Your task to perform on an android device: delete location history Image 0: 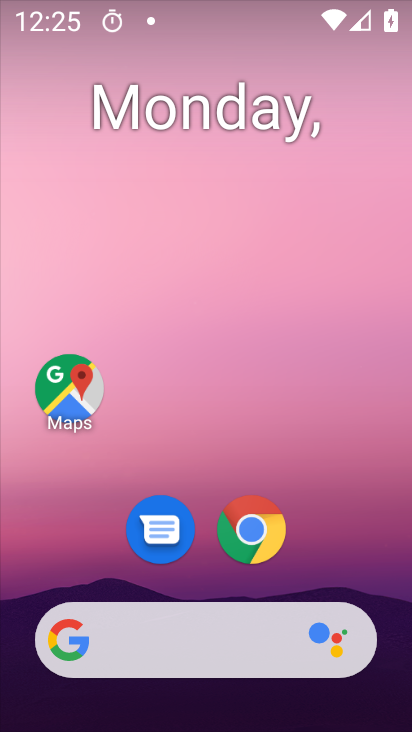
Step 0: drag from (237, 644) to (252, 55)
Your task to perform on an android device: delete location history Image 1: 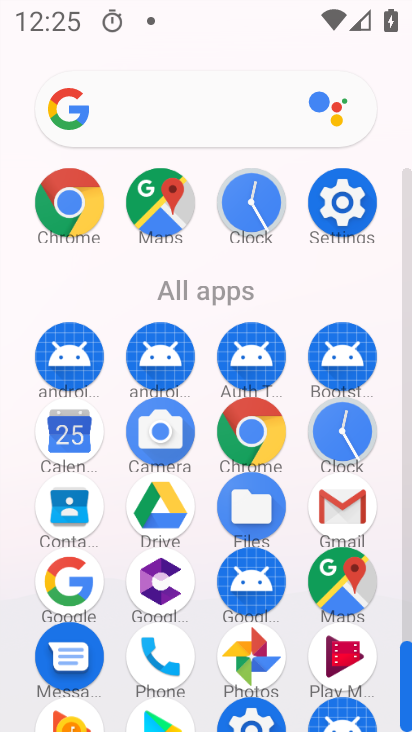
Step 1: click (325, 574)
Your task to perform on an android device: delete location history Image 2: 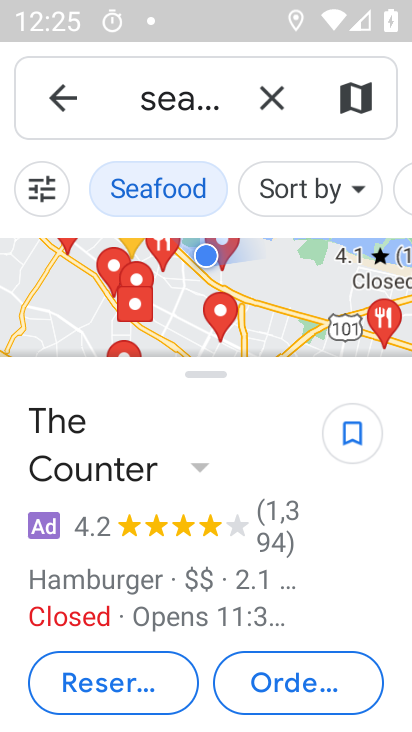
Step 2: click (56, 98)
Your task to perform on an android device: delete location history Image 3: 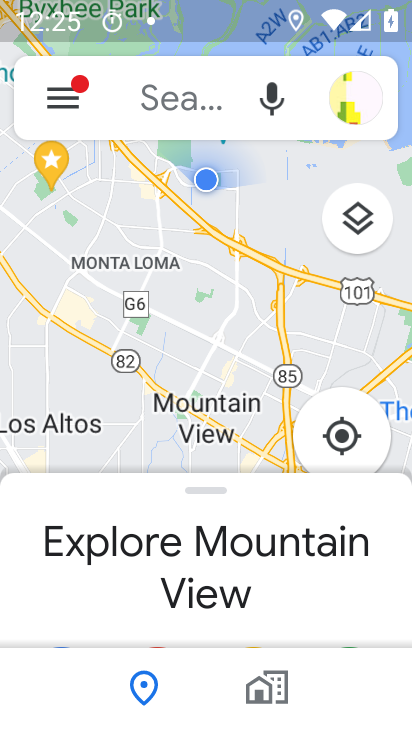
Step 3: click (77, 100)
Your task to perform on an android device: delete location history Image 4: 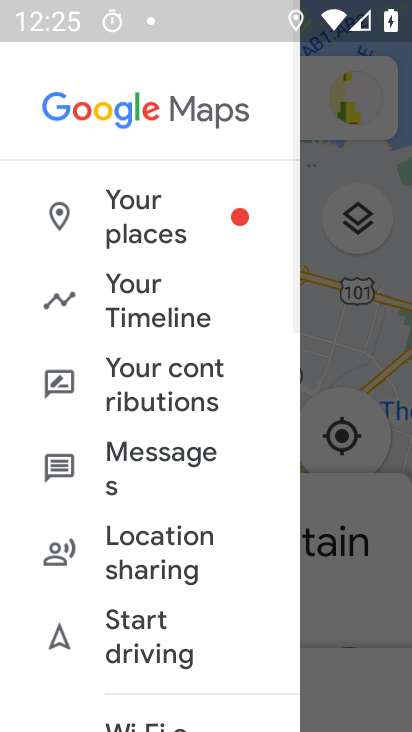
Step 4: drag from (152, 605) to (23, 366)
Your task to perform on an android device: delete location history Image 5: 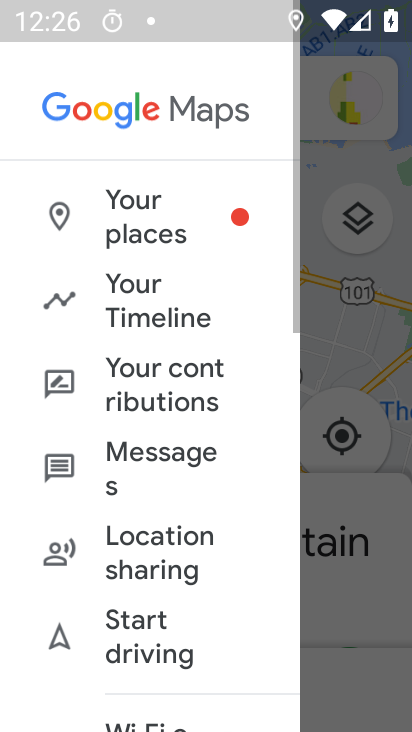
Step 5: drag from (134, 596) to (132, 17)
Your task to perform on an android device: delete location history Image 6: 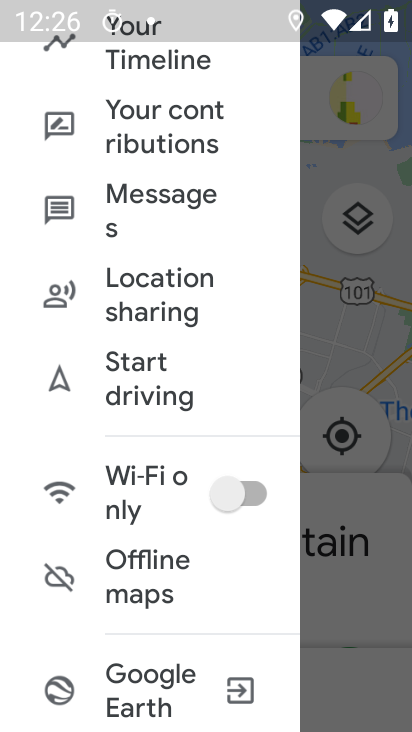
Step 6: click (123, 74)
Your task to perform on an android device: delete location history Image 7: 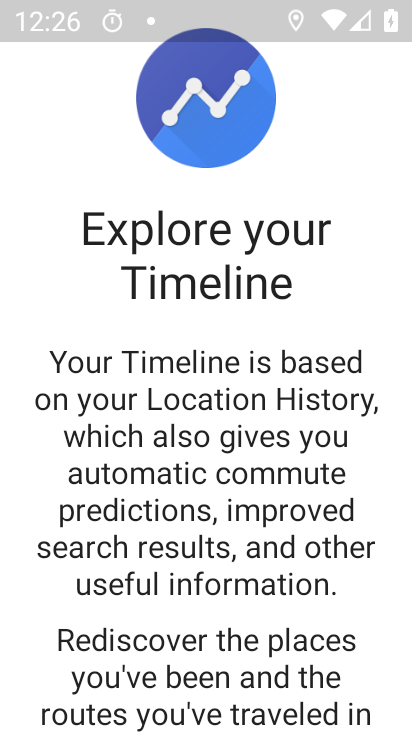
Step 7: drag from (374, 681) to (324, 18)
Your task to perform on an android device: delete location history Image 8: 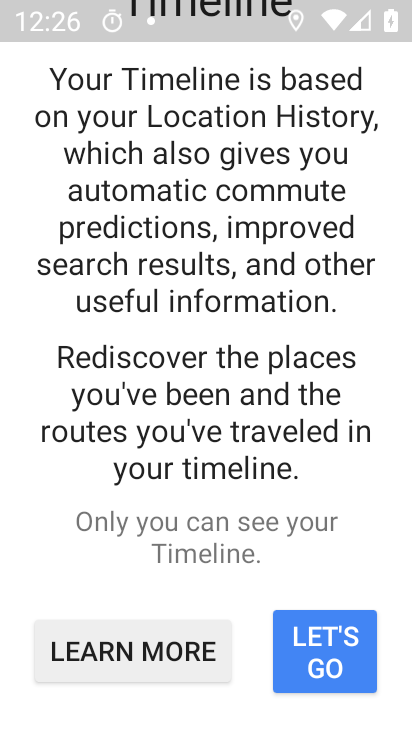
Step 8: click (359, 661)
Your task to perform on an android device: delete location history Image 9: 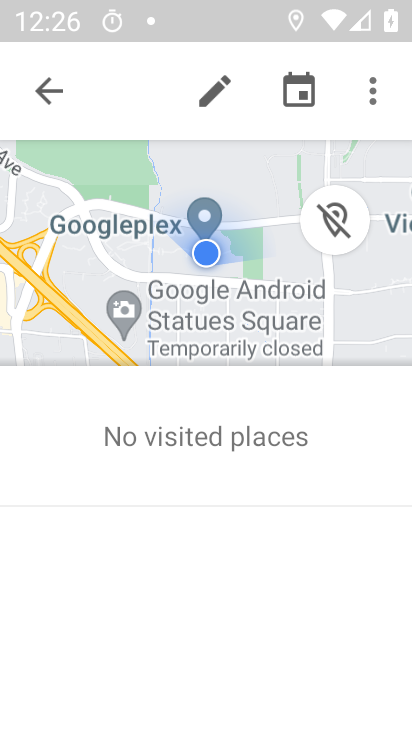
Step 9: click (376, 94)
Your task to perform on an android device: delete location history Image 10: 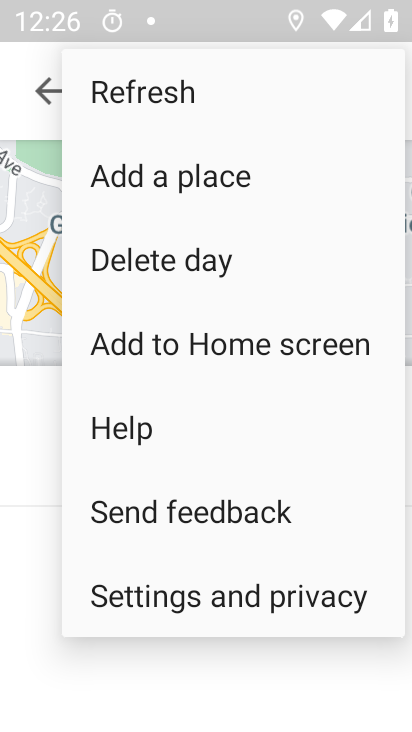
Step 10: drag from (266, 589) to (248, 199)
Your task to perform on an android device: delete location history Image 11: 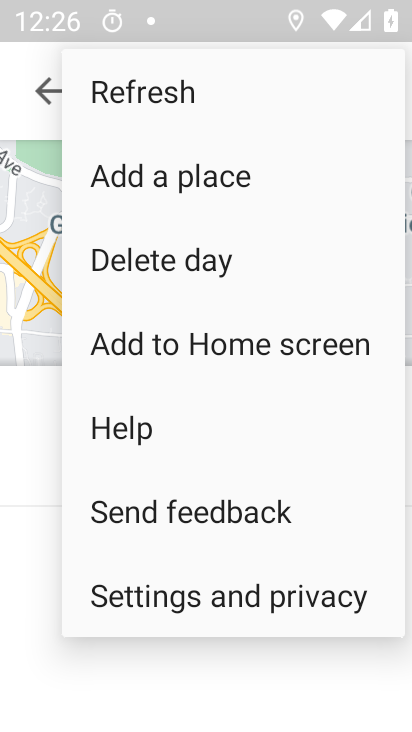
Step 11: drag from (251, 580) to (177, 7)
Your task to perform on an android device: delete location history Image 12: 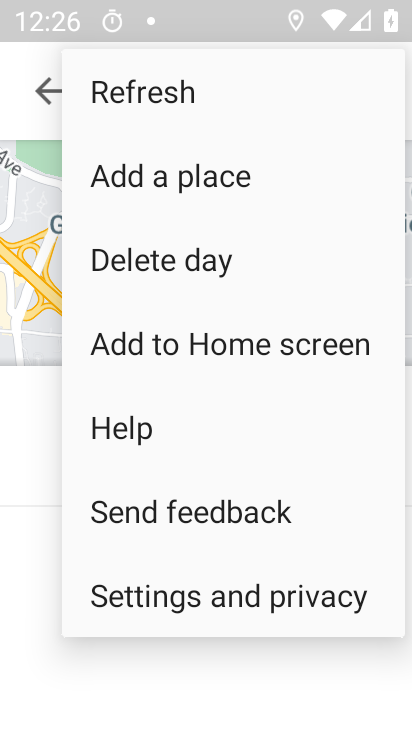
Step 12: click (314, 607)
Your task to perform on an android device: delete location history Image 13: 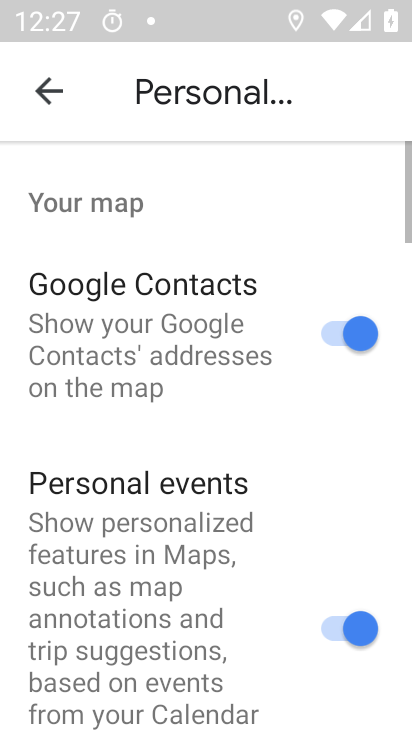
Step 13: drag from (246, 586) to (206, 48)
Your task to perform on an android device: delete location history Image 14: 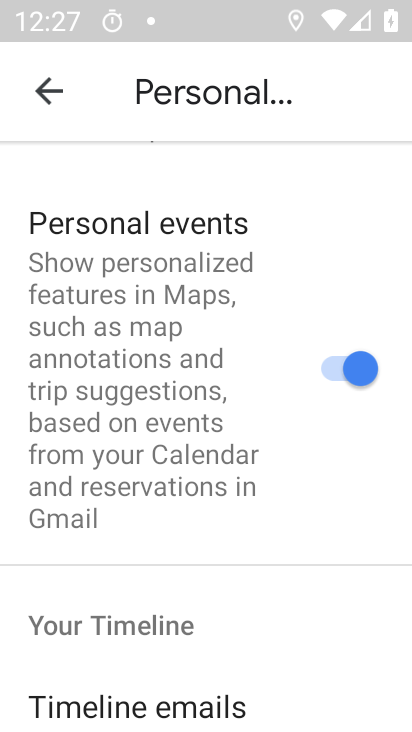
Step 14: drag from (218, 647) to (179, 6)
Your task to perform on an android device: delete location history Image 15: 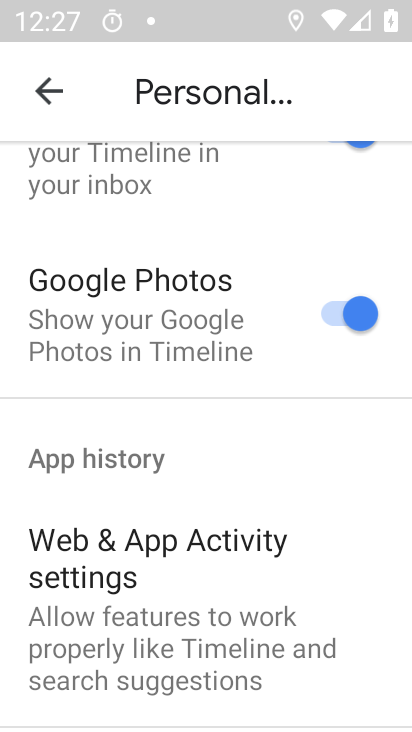
Step 15: drag from (281, 618) to (242, 12)
Your task to perform on an android device: delete location history Image 16: 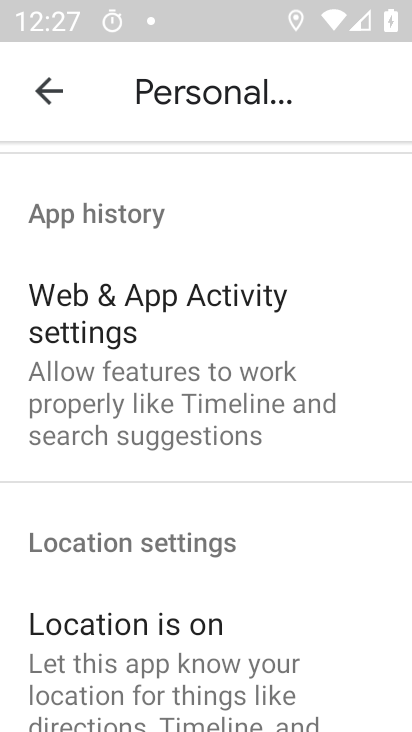
Step 16: drag from (217, 641) to (184, 64)
Your task to perform on an android device: delete location history Image 17: 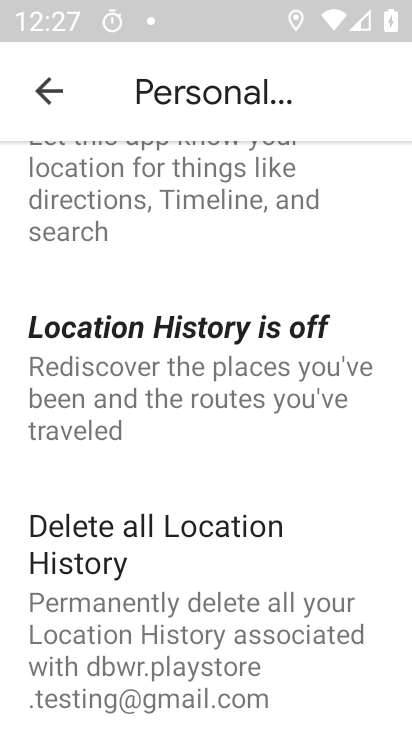
Step 17: click (149, 582)
Your task to perform on an android device: delete location history Image 18: 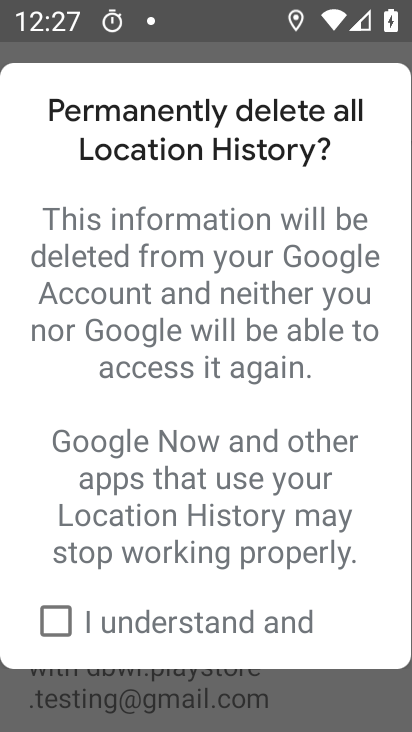
Step 18: click (231, 610)
Your task to perform on an android device: delete location history Image 19: 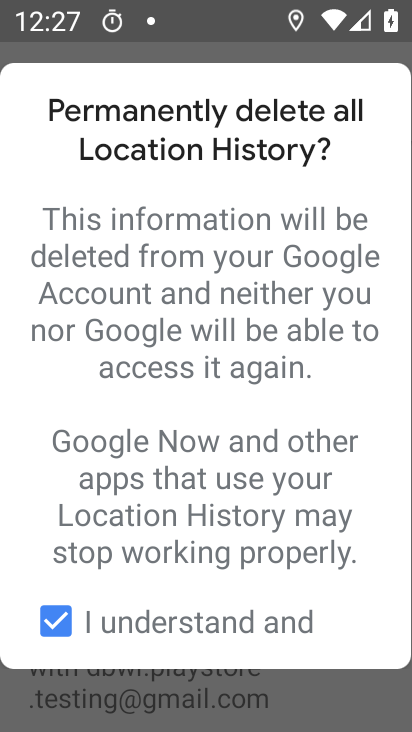
Step 19: task complete